Your task to perform on an android device: Search for the best way to make a resume. Image 0: 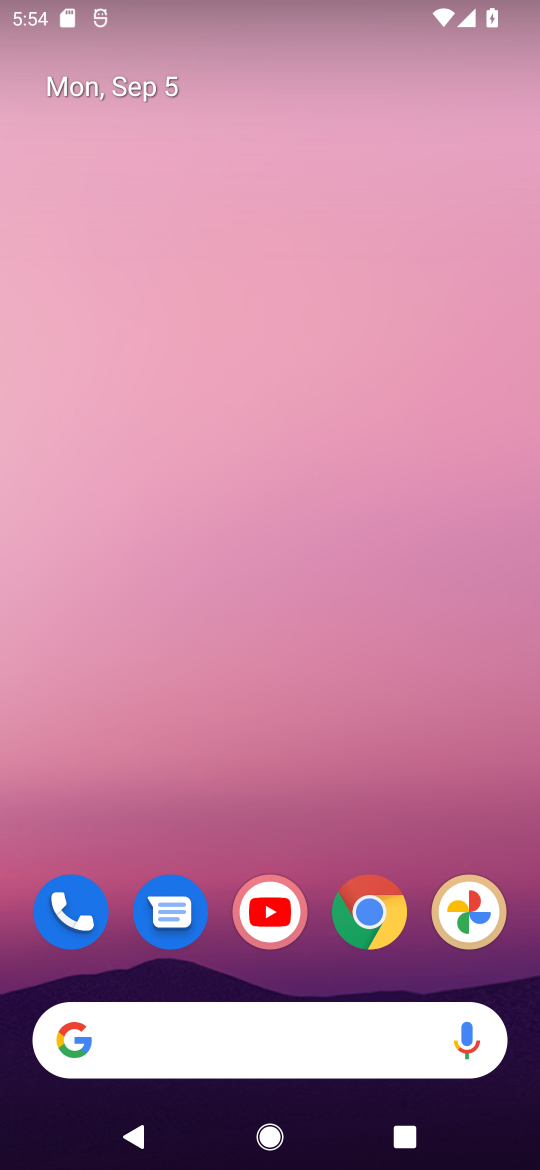
Step 0: click (345, 889)
Your task to perform on an android device: Search for the best way to make a resume. Image 1: 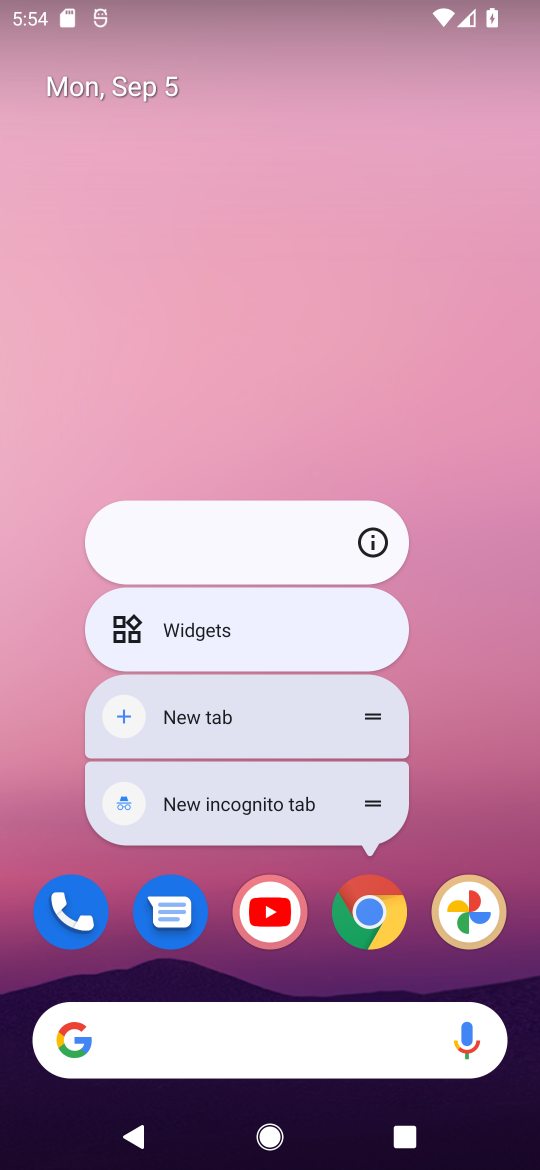
Step 1: click (364, 910)
Your task to perform on an android device: Search for the best way to make a resume. Image 2: 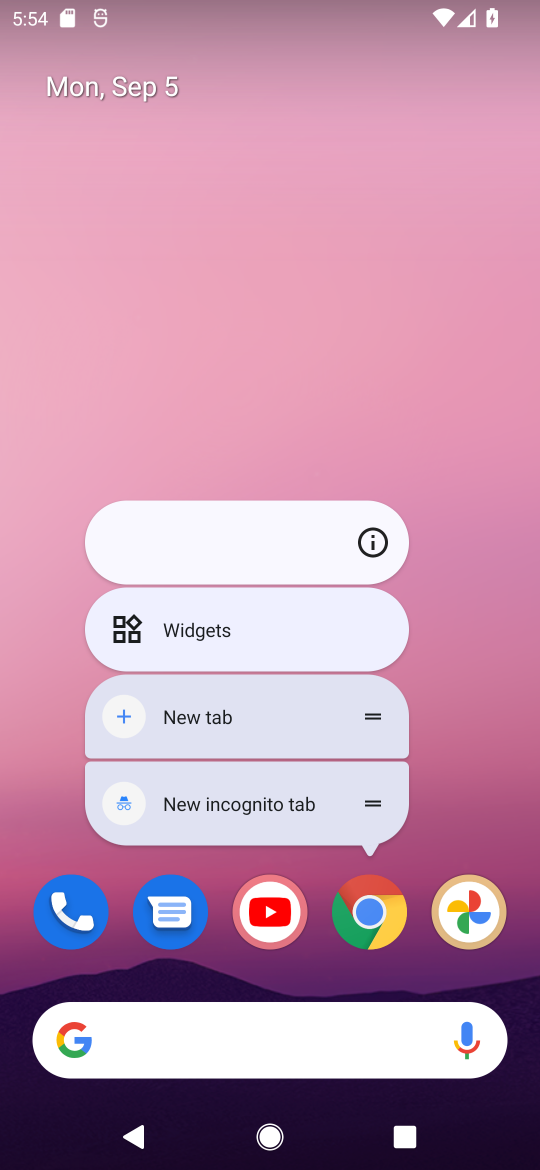
Step 2: click (369, 919)
Your task to perform on an android device: Search for the best way to make a resume. Image 3: 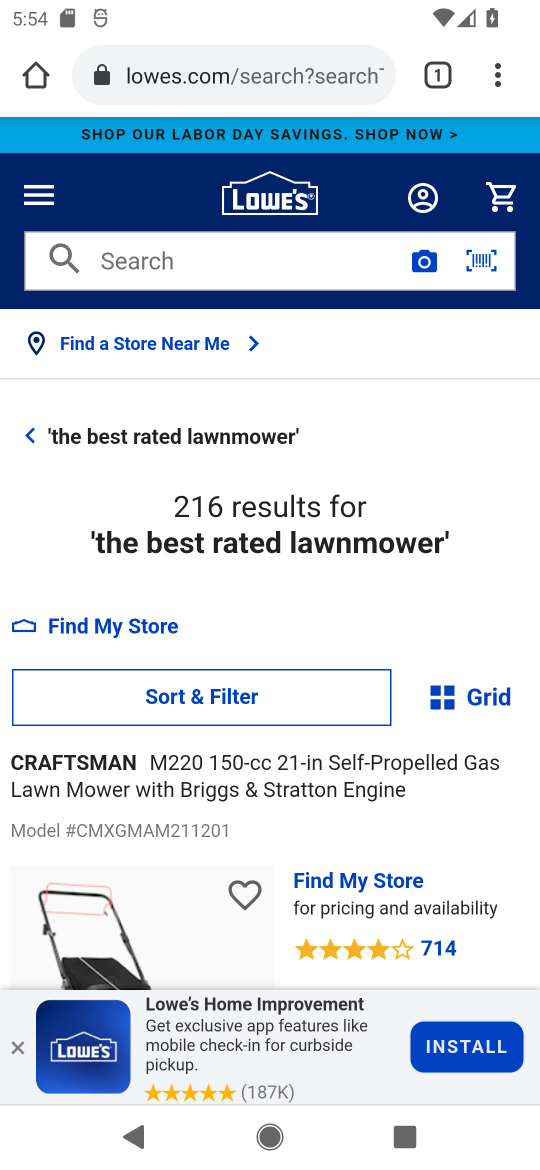
Step 3: click (192, 58)
Your task to perform on an android device: Search for the best way to make a resume. Image 4: 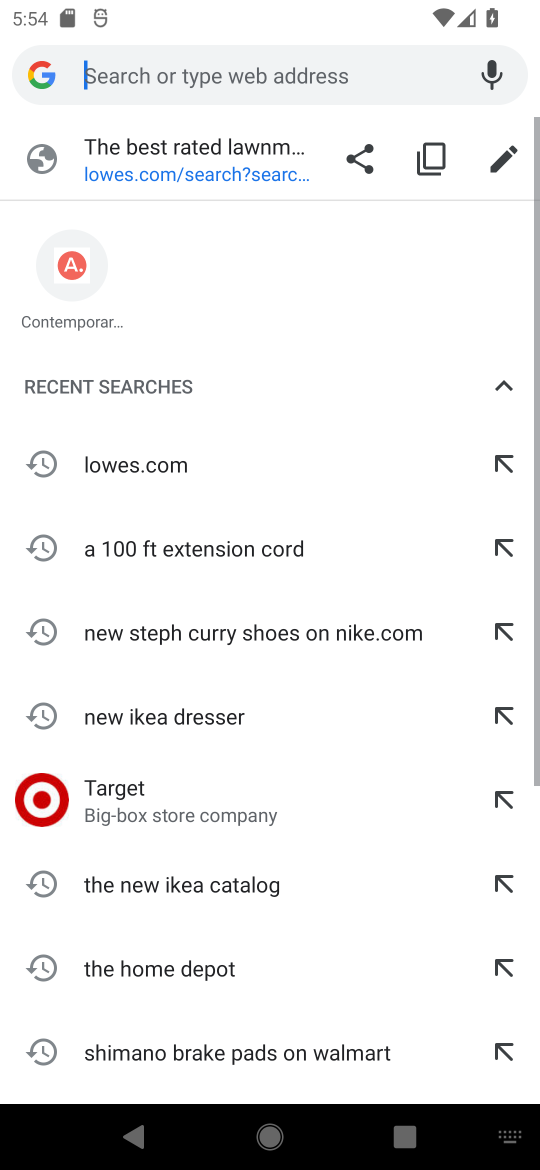
Step 4: drag from (453, 1165) to (539, 1165)
Your task to perform on an android device: Search for the best way to make a resume. Image 5: 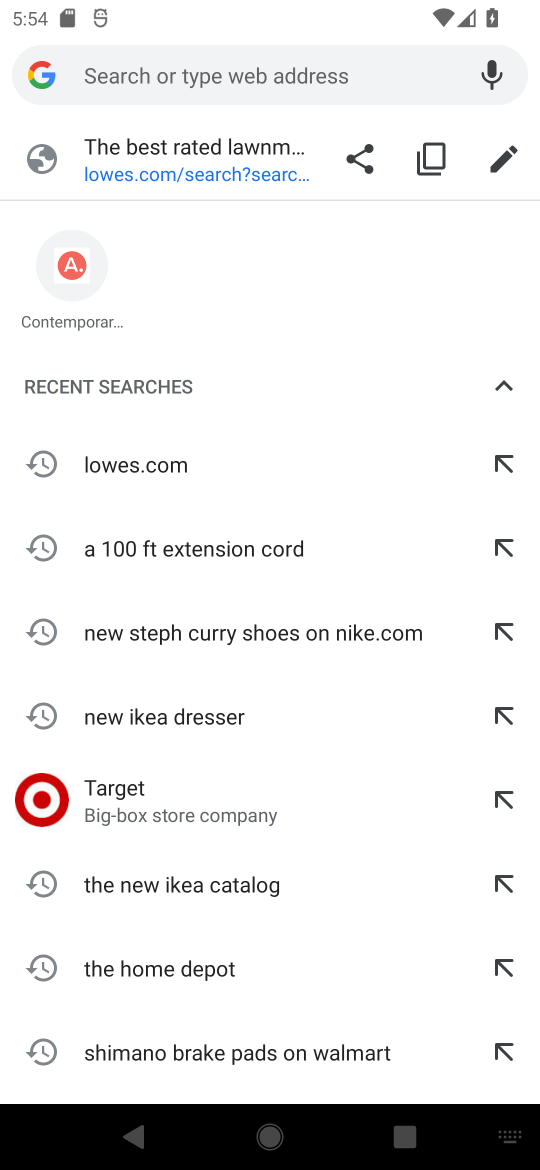
Step 5: type "the best way to make a resume"
Your task to perform on an android device: Search for the best way to make a resume. Image 6: 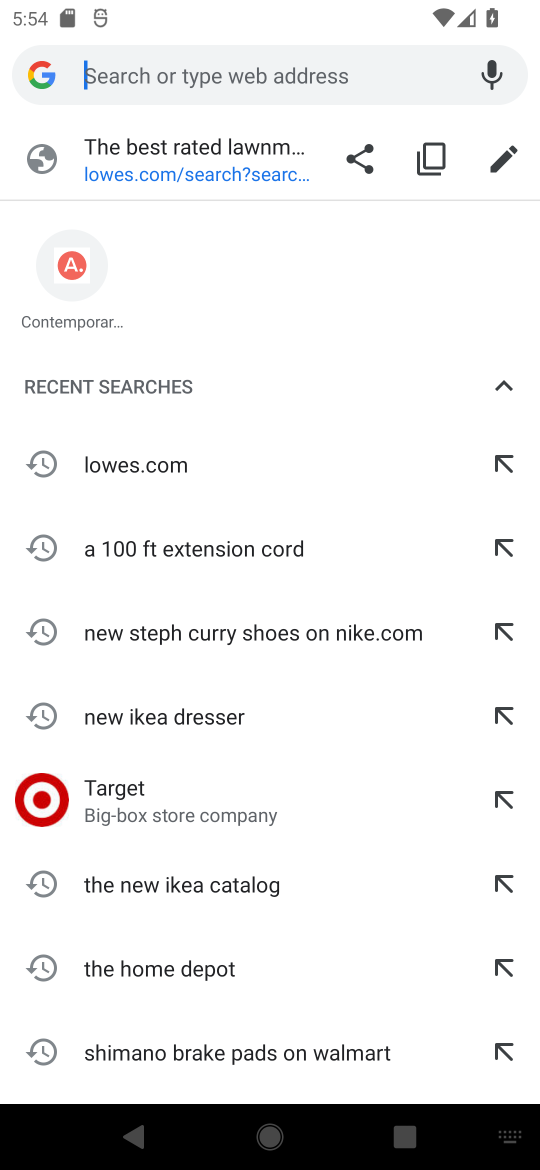
Step 6: task complete